Your task to perform on an android device: turn on notifications settings in the gmail app Image 0: 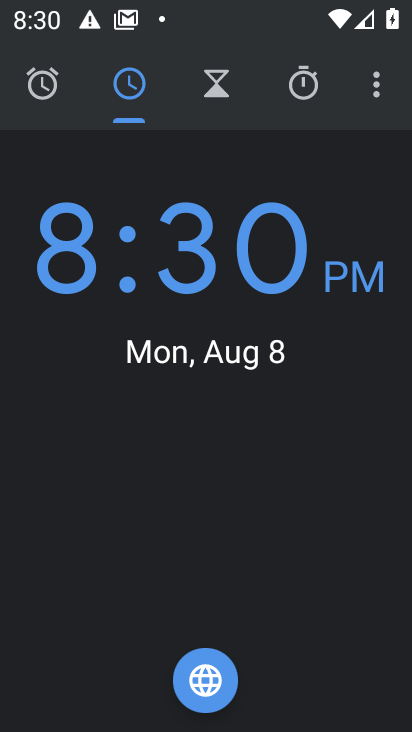
Step 0: press home button
Your task to perform on an android device: turn on notifications settings in the gmail app Image 1: 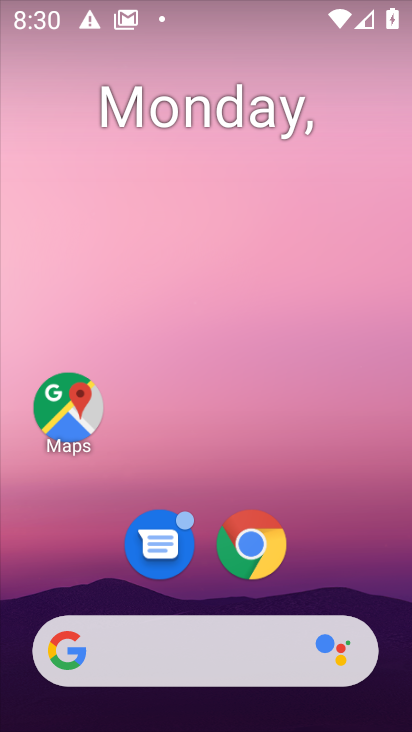
Step 1: drag from (209, 582) to (251, 26)
Your task to perform on an android device: turn on notifications settings in the gmail app Image 2: 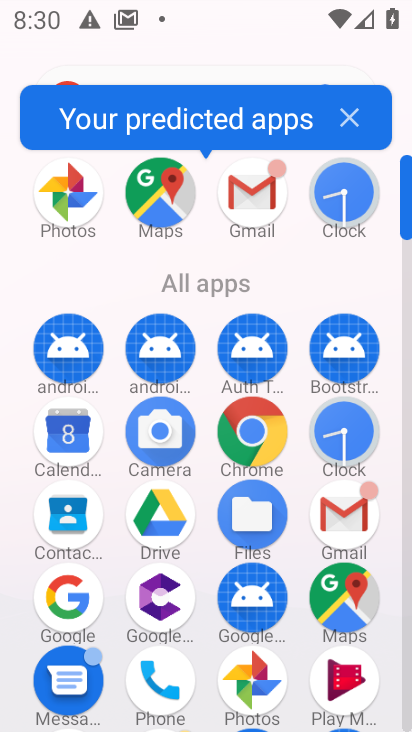
Step 2: click (249, 182)
Your task to perform on an android device: turn on notifications settings in the gmail app Image 3: 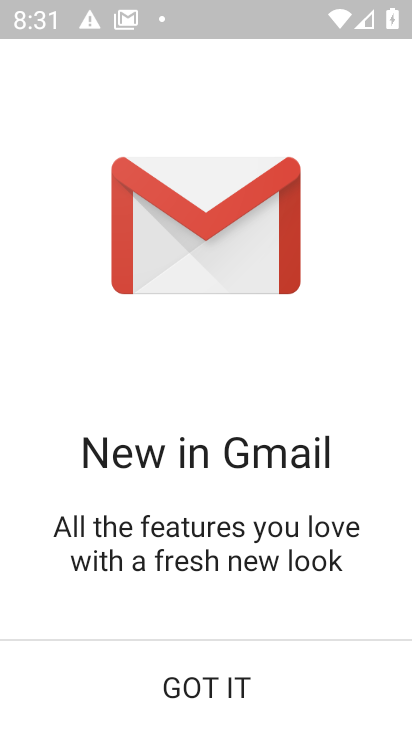
Step 3: click (219, 699)
Your task to perform on an android device: turn on notifications settings in the gmail app Image 4: 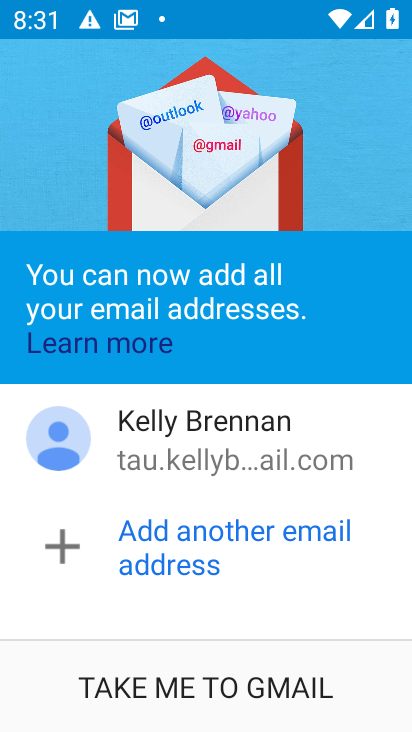
Step 4: click (196, 700)
Your task to perform on an android device: turn on notifications settings in the gmail app Image 5: 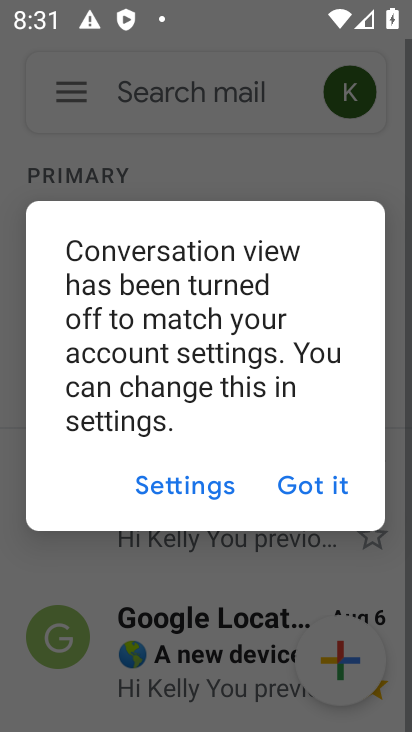
Step 5: click (318, 481)
Your task to perform on an android device: turn on notifications settings in the gmail app Image 6: 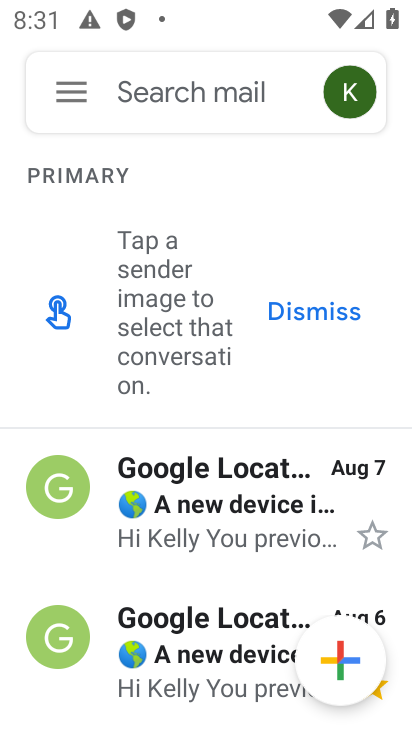
Step 6: click (62, 89)
Your task to perform on an android device: turn on notifications settings in the gmail app Image 7: 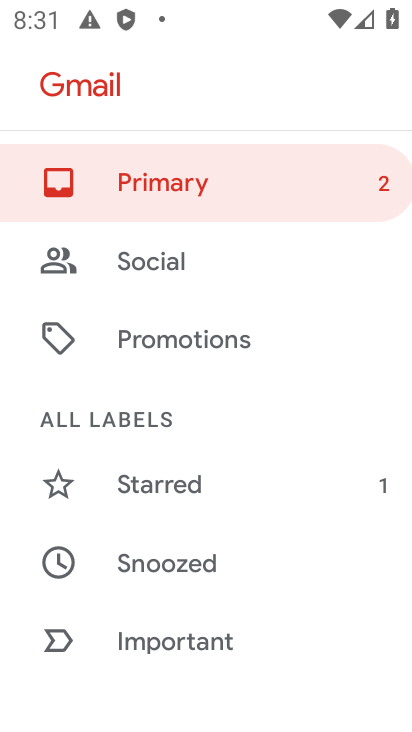
Step 7: drag from (192, 633) to (257, 68)
Your task to perform on an android device: turn on notifications settings in the gmail app Image 8: 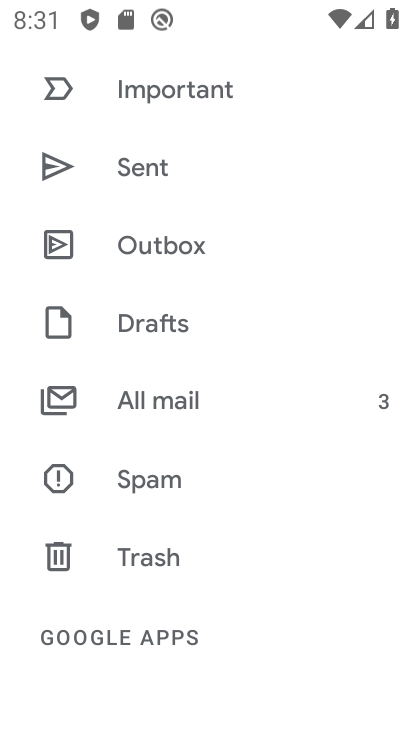
Step 8: drag from (168, 614) to (174, 15)
Your task to perform on an android device: turn on notifications settings in the gmail app Image 9: 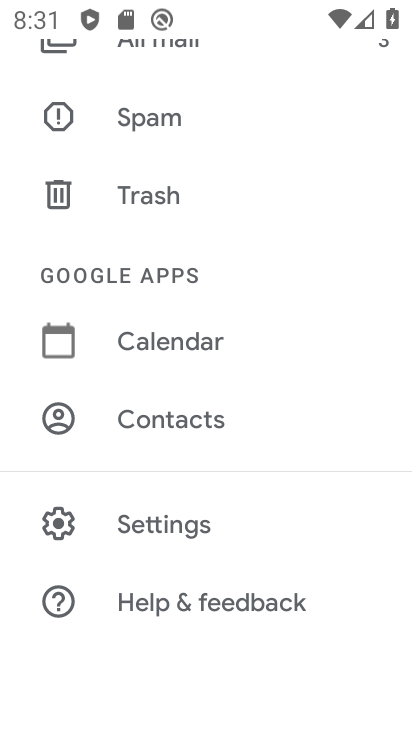
Step 9: click (220, 518)
Your task to perform on an android device: turn on notifications settings in the gmail app Image 10: 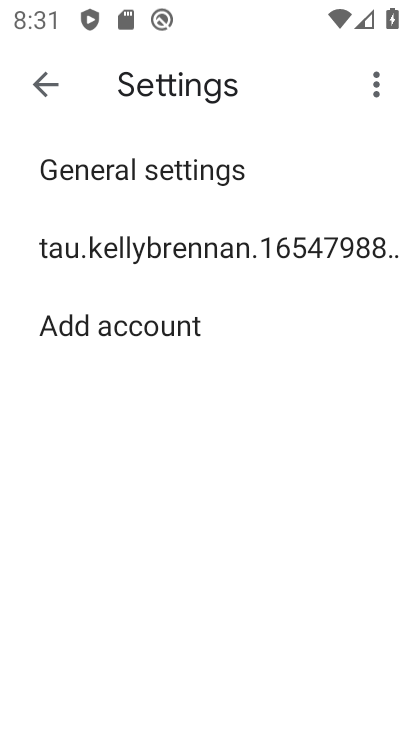
Step 10: click (263, 167)
Your task to perform on an android device: turn on notifications settings in the gmail app Image 11: 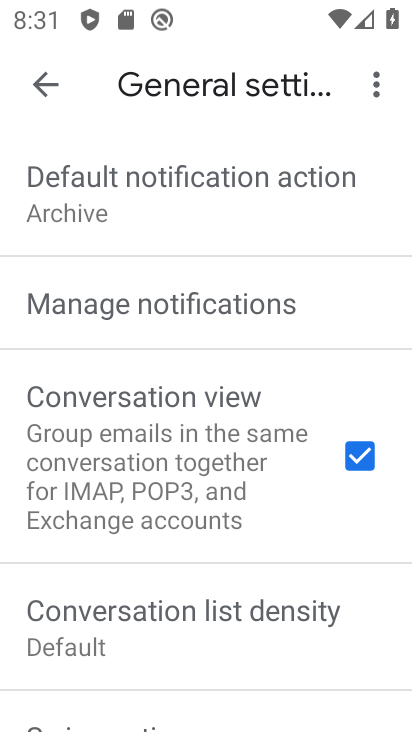
Step 11: click (130, 321)
Your task to perform on an android device: turn on notifications settings in the gmail app Image 12: 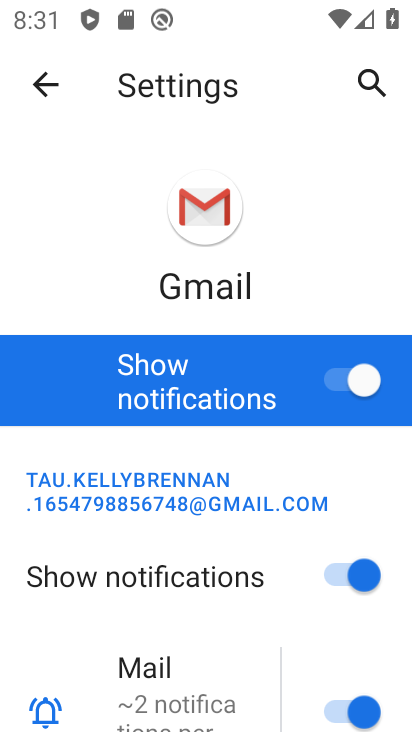
Step 12: task complete